Your task to perform on an android device: Show me popular games on the Play Store Image 0: 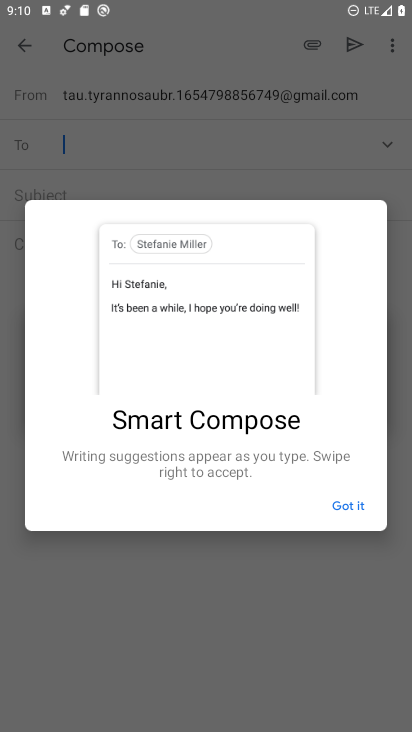
Step 0: press home button
Your task to perform on an android device: Show me popular games on the Play Store Image 1: 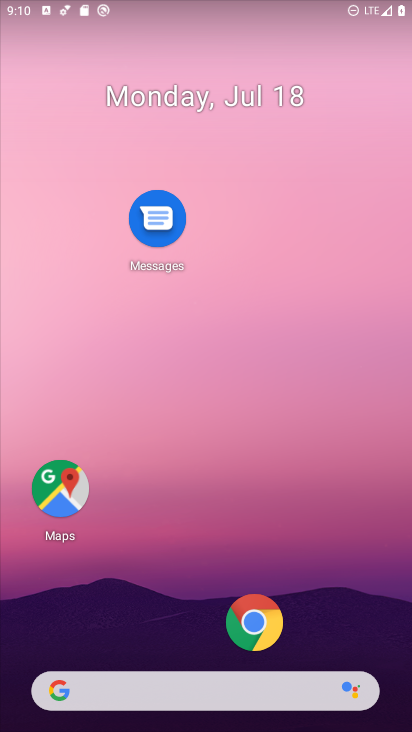
Step 1: drag from (344, 670) to (411, 321)
Your task to perform on an android device: Show me popular games on the Play Store Image 2: 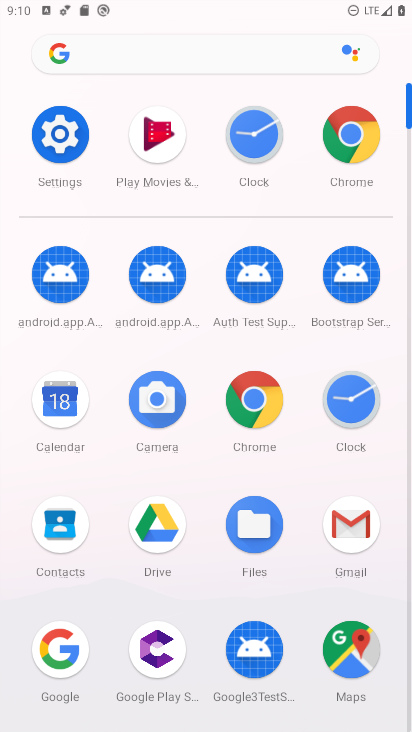
Step 2: drag from (227, 552) to (310, 155)
Your task to perform on an android device: Show me popular games on the Play Store Image 3: 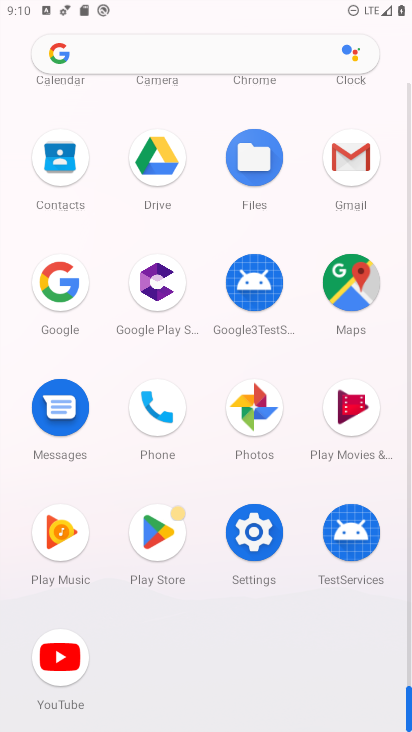
Step 3: click (163, 563)
Your task to perform on an android device: Show me popular games on the Play Store Image 4: 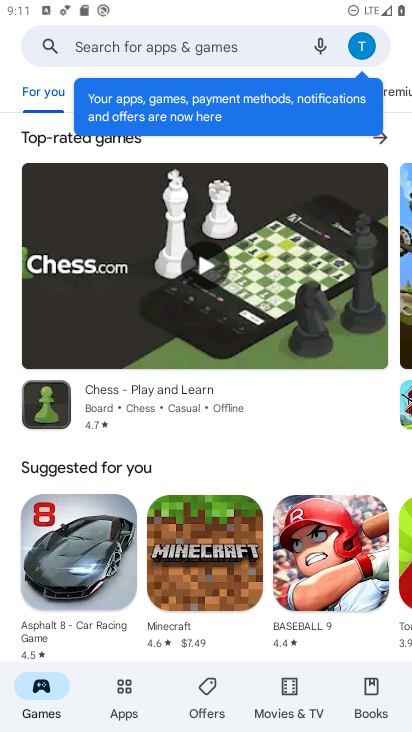
Step 4: task complete